Your task to perform on an android device: Turn off the flashlight Image 0: 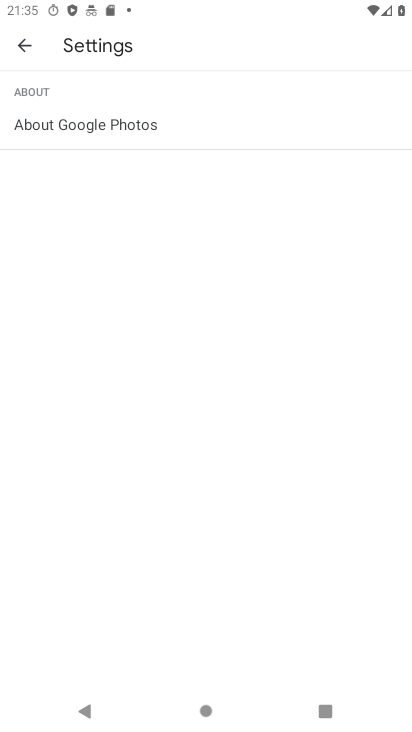
Step 0: click (18, 41)
Your task to perform on an android device: Turn off the flashlight Image 1: 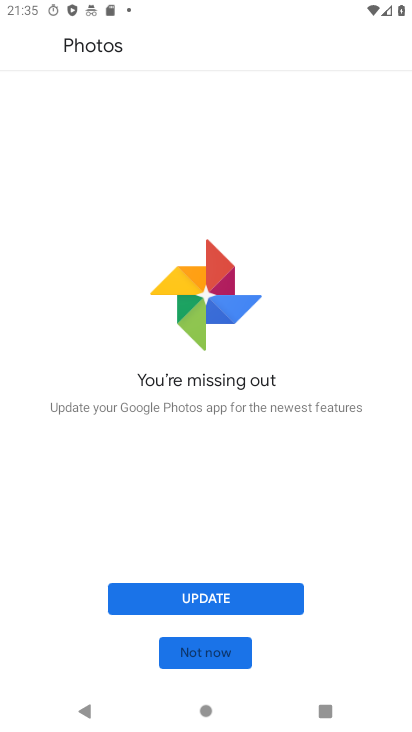
Step 1: press back button
Your task to perform on an android device: Turn off the flashlight Image 2: 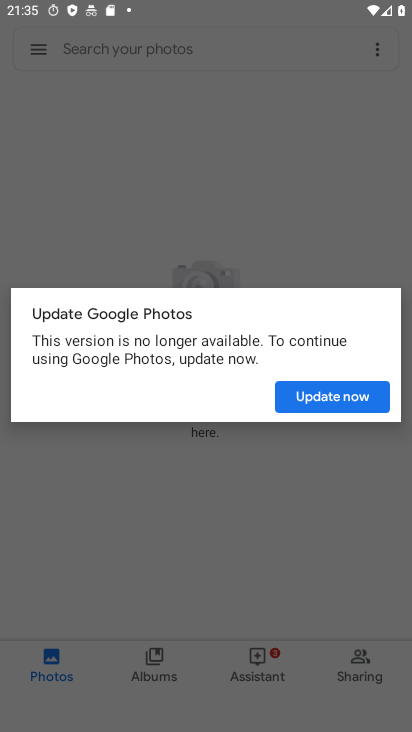
Step 2: click (217, 642)
Your task to perform on an android device: Turn off the flashlight Image 3: 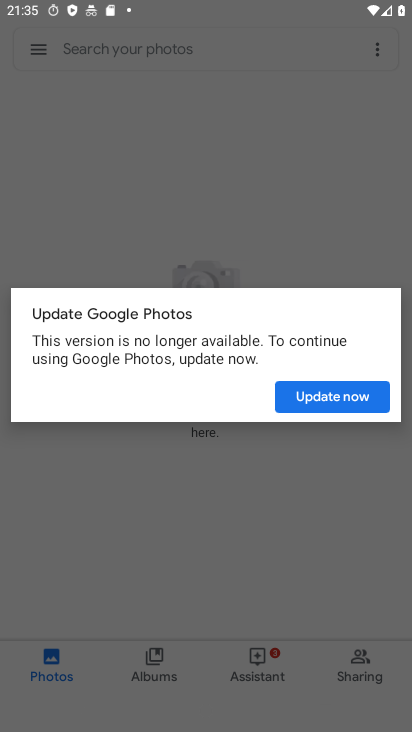
Step 3: click (252, 141)
Your task to perform on an android device: Turn off the flashlight Image 4: 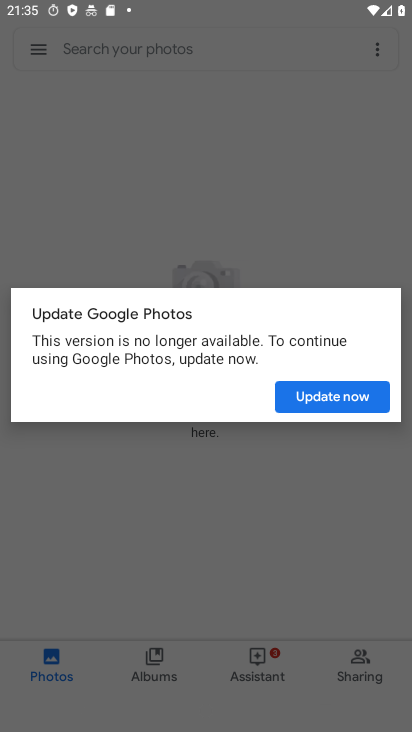
Step 4: click (337, 393)
Your task to perform on an android device: Turn off the flashlight Image 5: 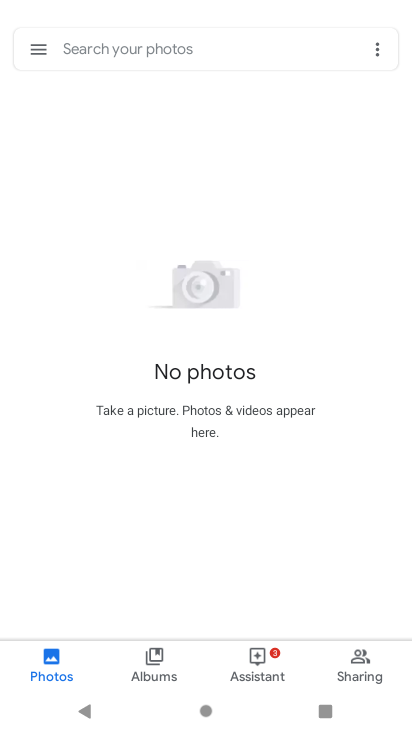
Step 5: click (288, 175)
Your task to perform on an android device: Turn off the flashlight Image 6: 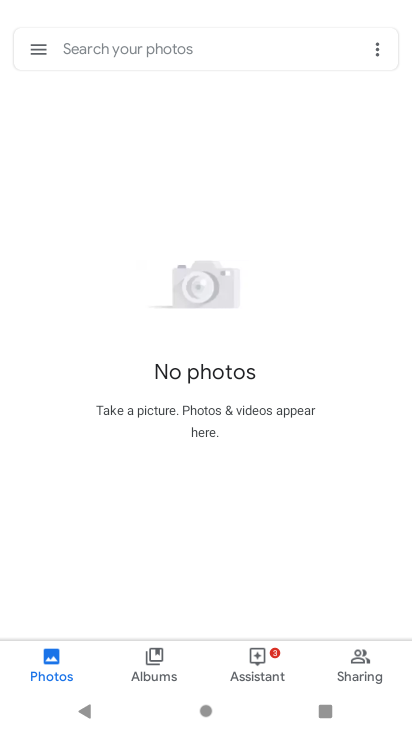
Step 6: click (288, 175)
Your task to perform on an android device: Turn off the flashlight Image 7: 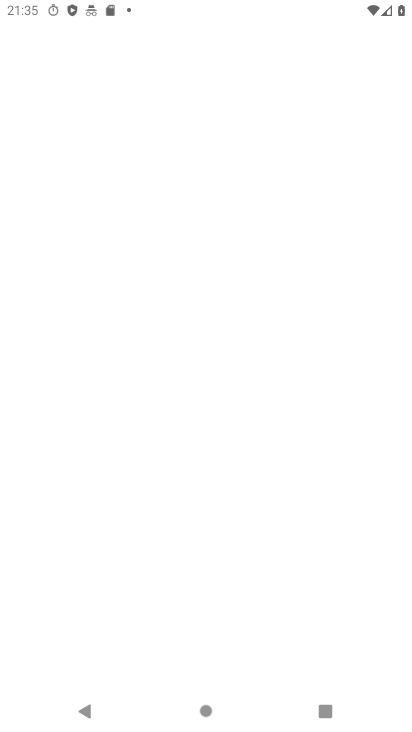
Step 7: task complete